Your task to perform on an android device: install app "Grab" Image 0: 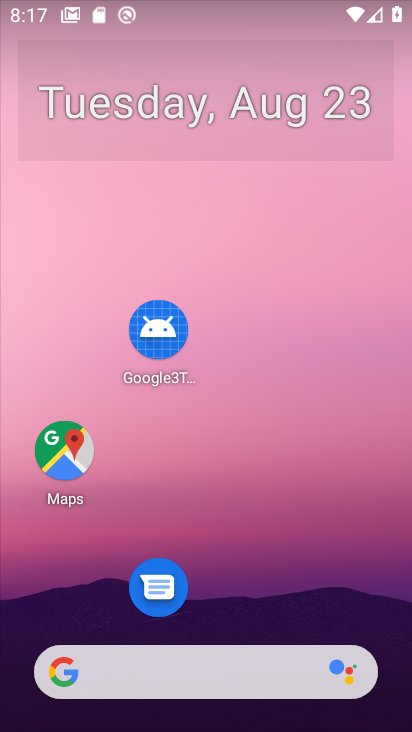
Step 0: drag from (255, 622) to (239, 51)
Your task to perform on an android device: install app "Grab" Image 1: 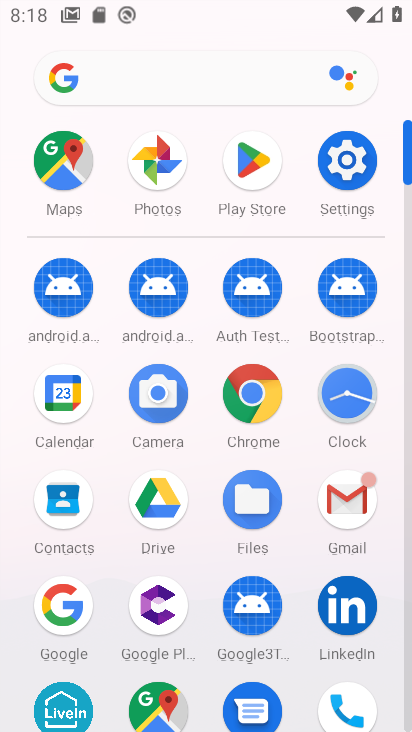
Step 1: click (257, 155)
Your task to perform on an android device: install app "Grab" Image 2: 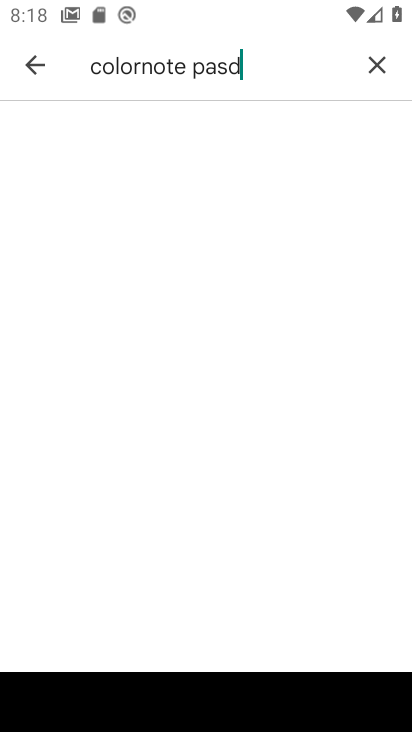
Step 2: click (372, 63)
Your task to perform on an android device: install app "Grab" Image 3: 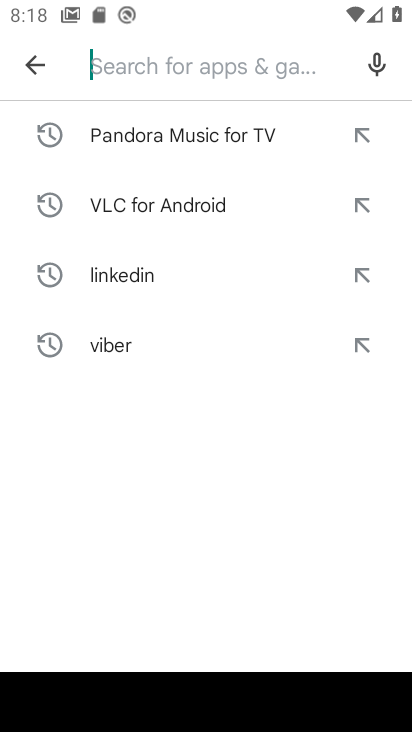
Step 3: type "grab"
Your task to perform on an android device: install app "Grab" Image 4: 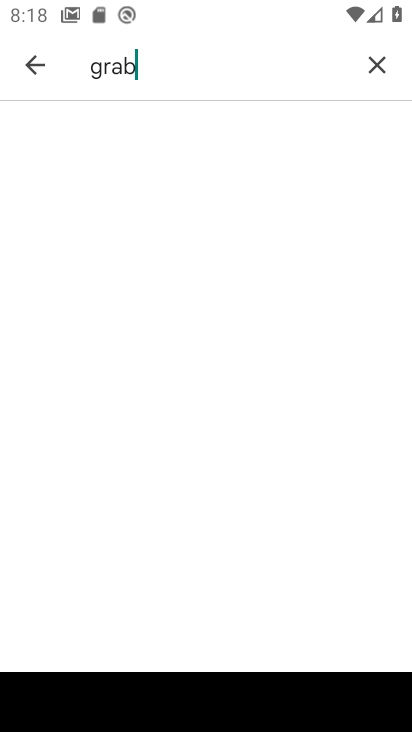
Step 4: task complete